Your task to perform on an android device: make emails show in primary in the gmail app Image 0: 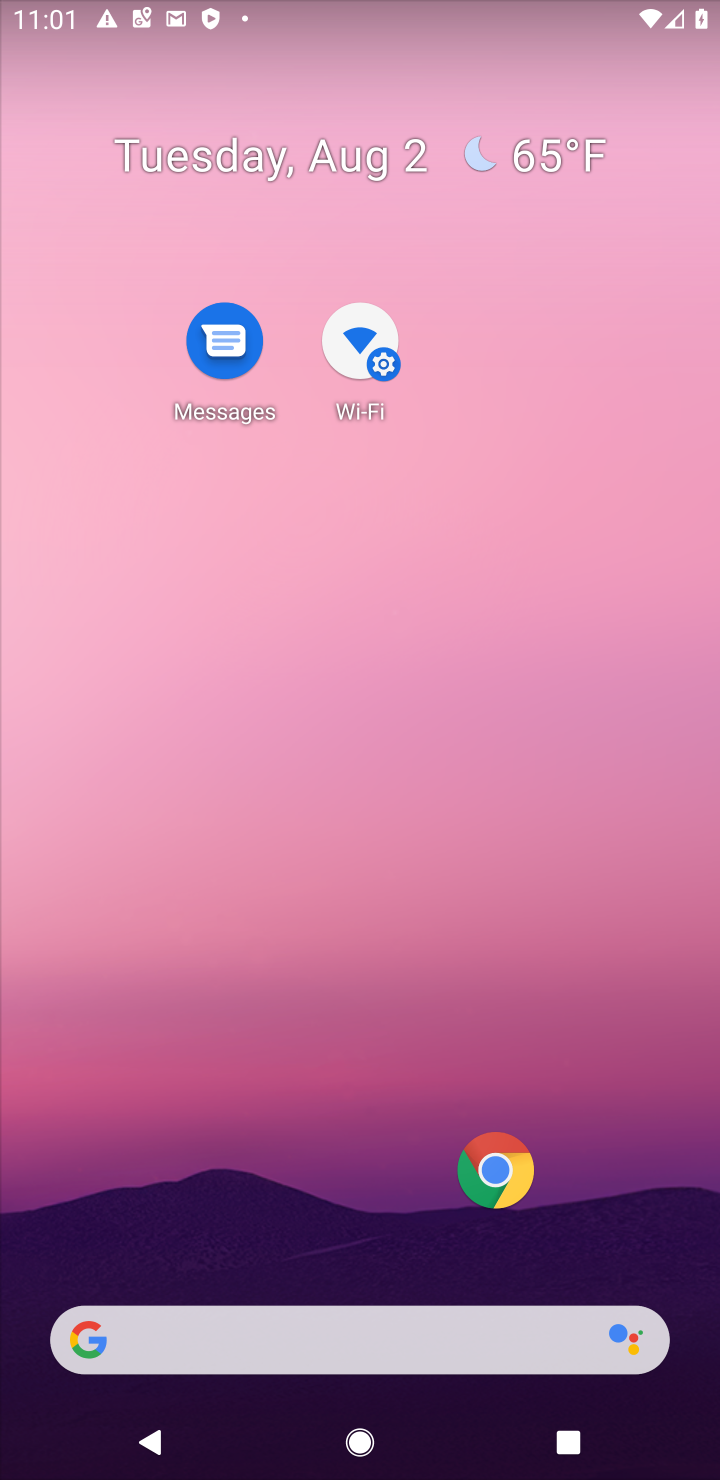
Step 0: drag from (359, 1193) to (341, 258)
Your task to perform on an android device: make emails show in primary in the gmail app Image 1: 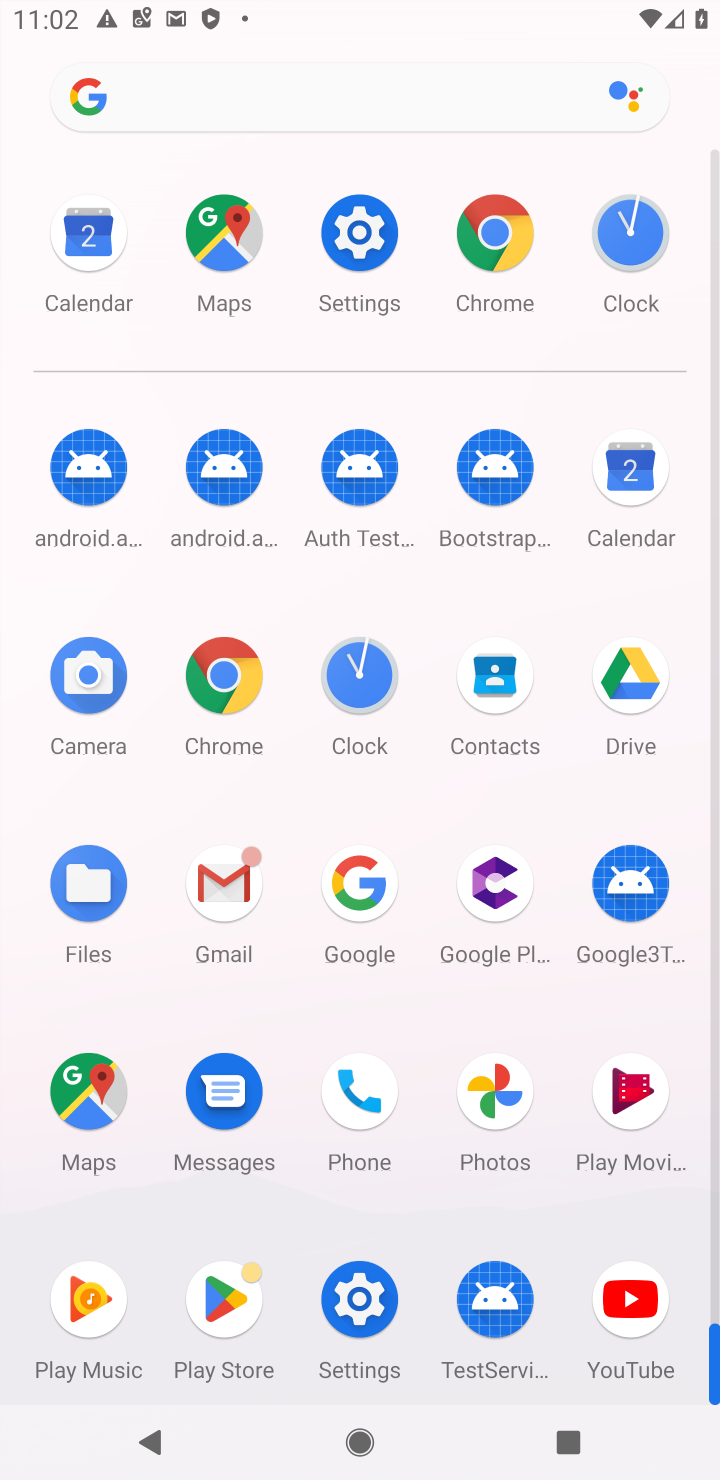
Step 1: click (237, 833)
Your task to perform on an android device: make emails show in primary in the gmail app Image 2: 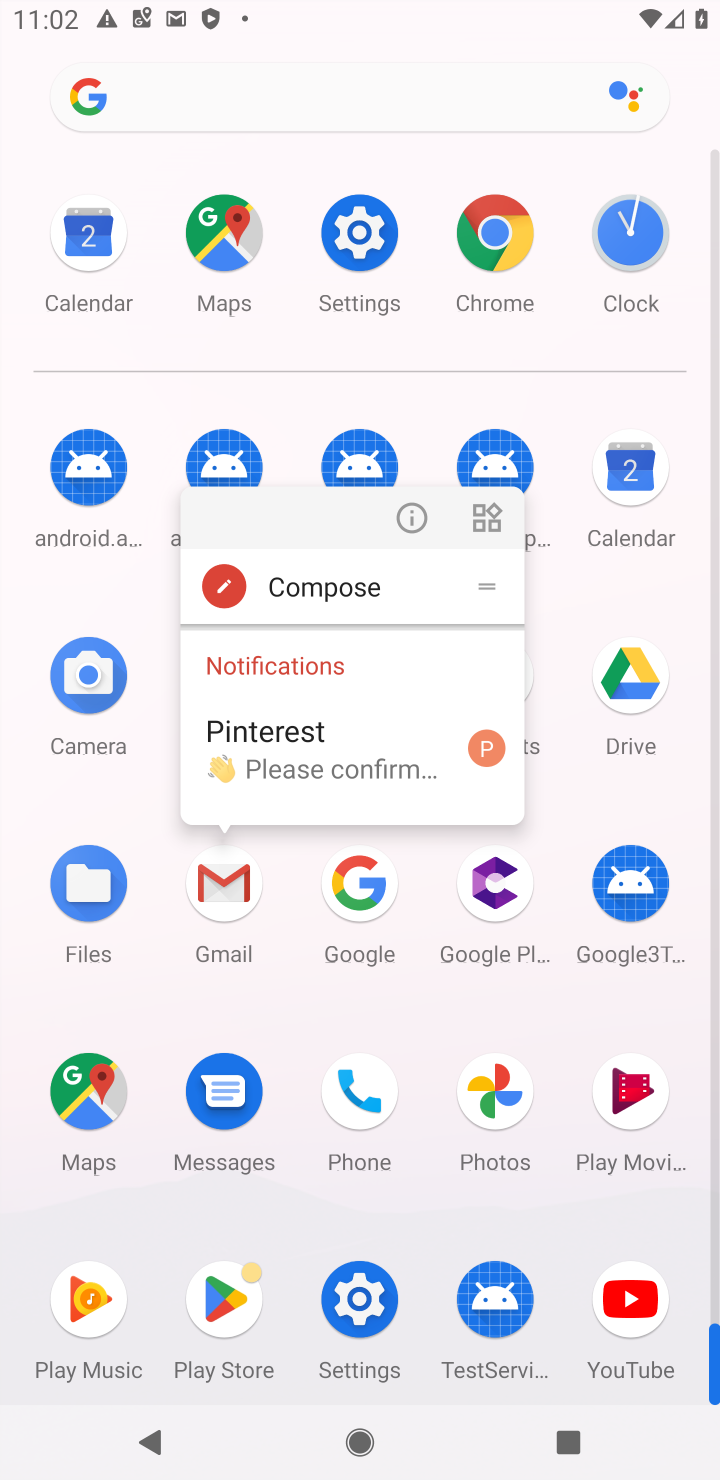
Step 2: click (424, 515)
Your task to perform on an android device: make emails show in primary in the gmail app Image 3: 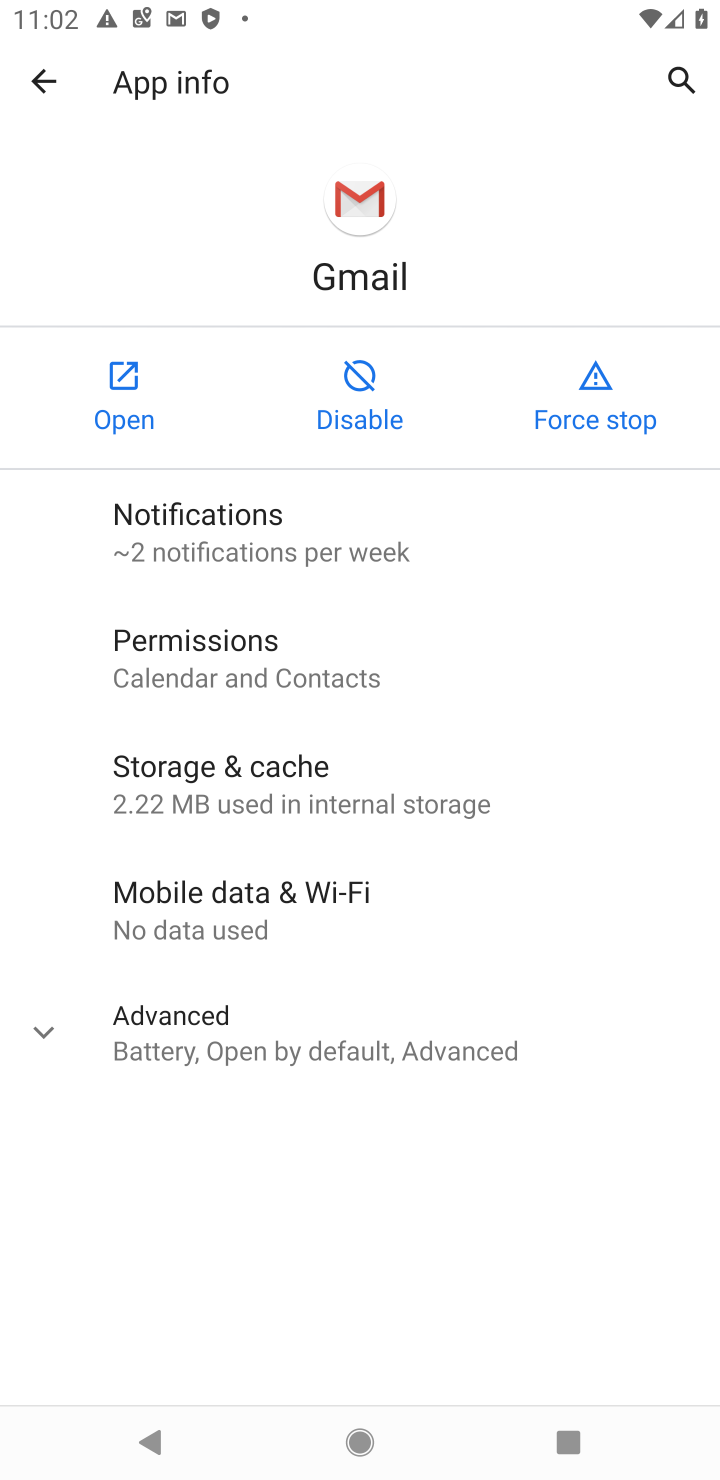
Step 3: click (92, 415)
Your task to perform on an android device: make emails show in primary in the gmail app Image 4: 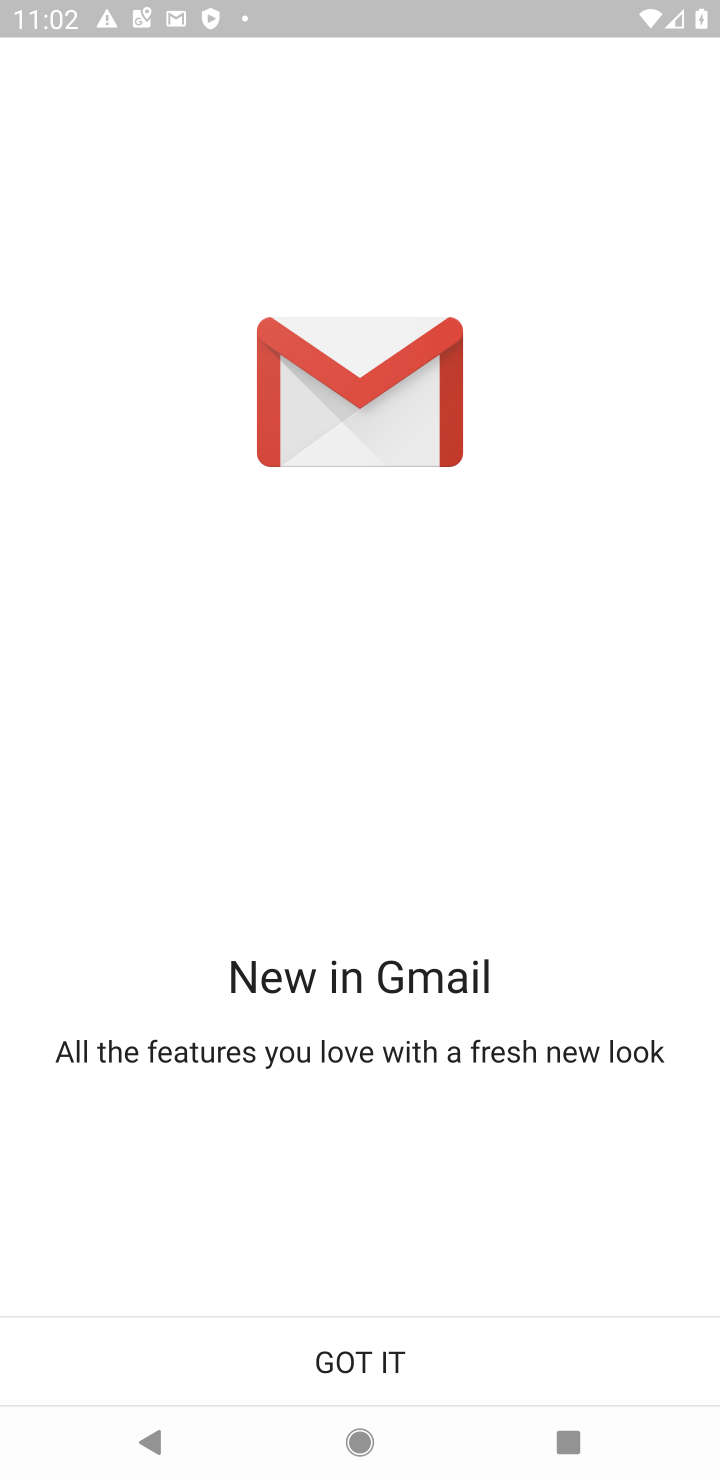
Step 4: click (356, 1366)
Your task to perform on an android device: make emails show in primary in the gmail app Image 5: 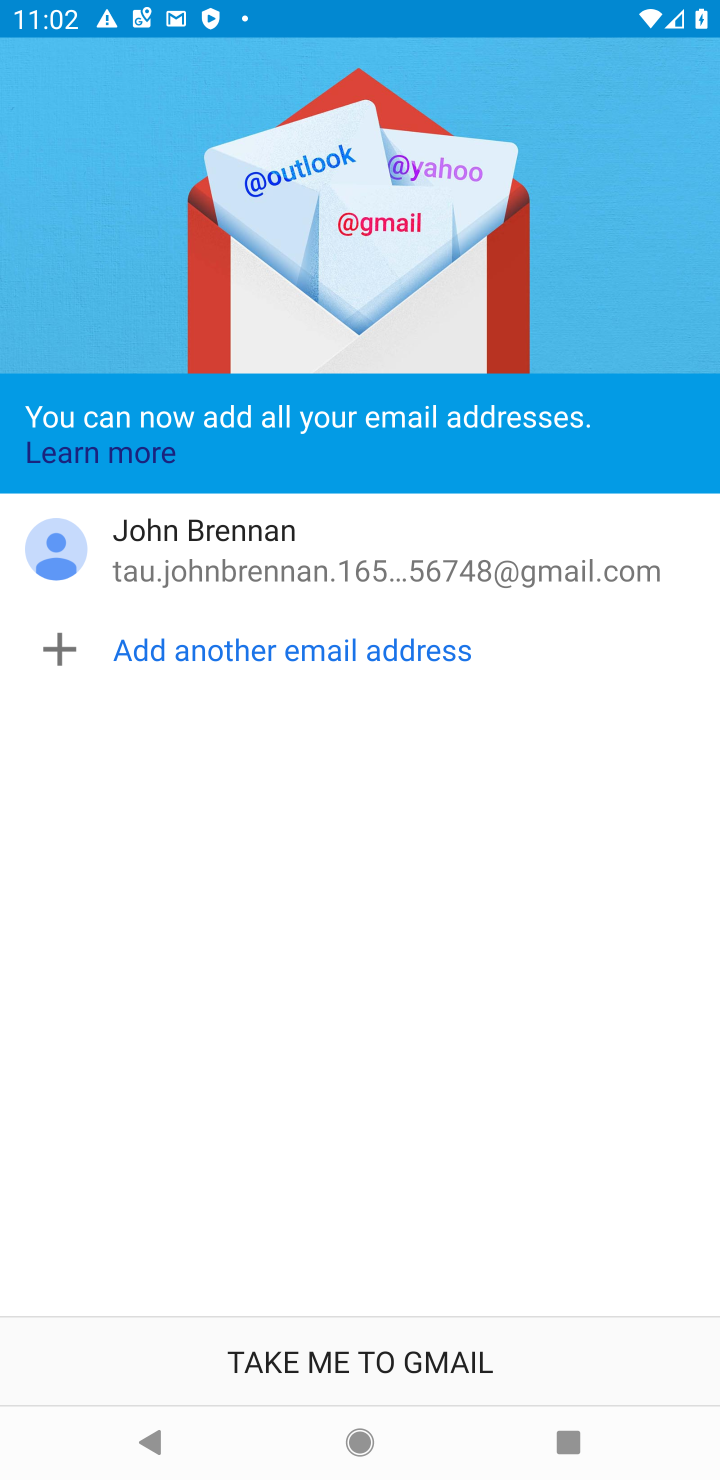
Step 5: click (285, 1344)
Your task to perform on an android device: make emails show in primary in the gmail app Image 6: 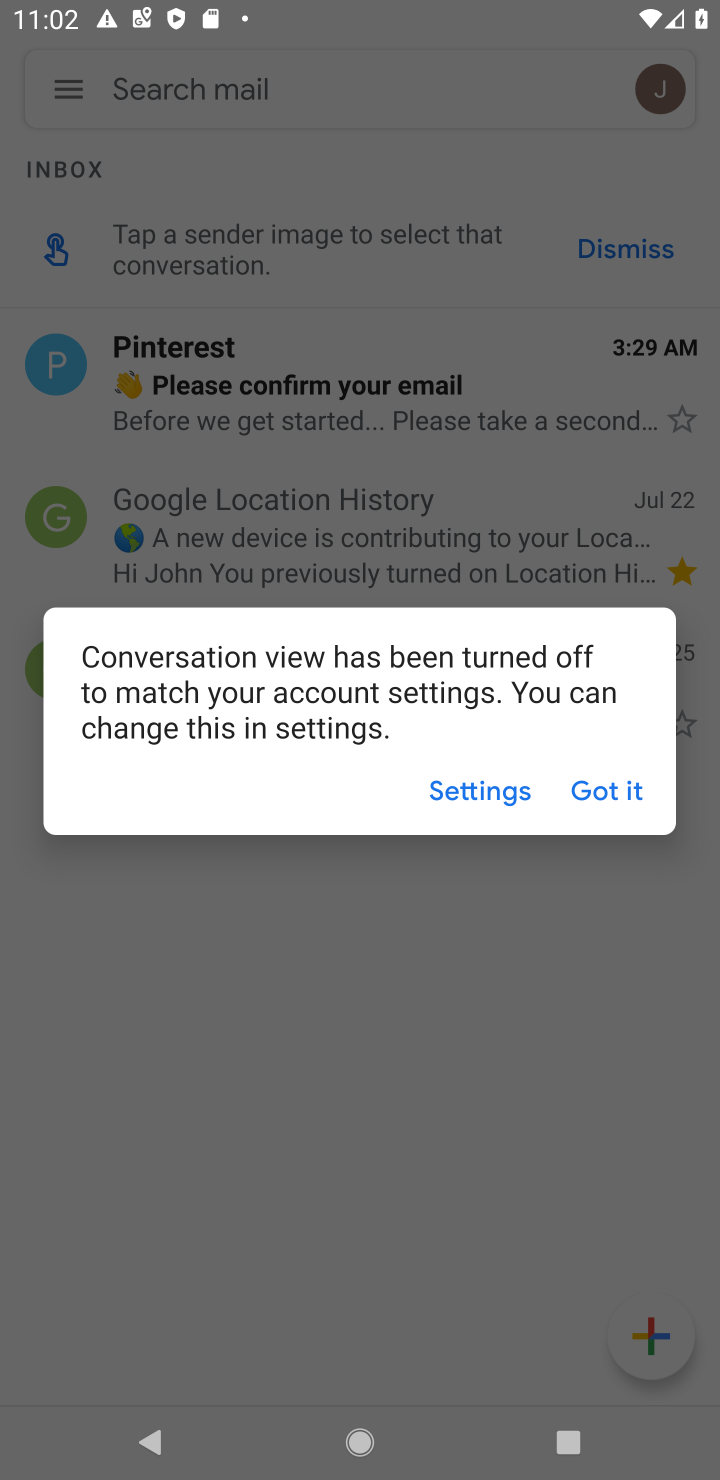
Step 6: drag from (317, 1197) to (710, 104)
Your task to perform on an android device: make emails show in primary in the gmail app Image 7: 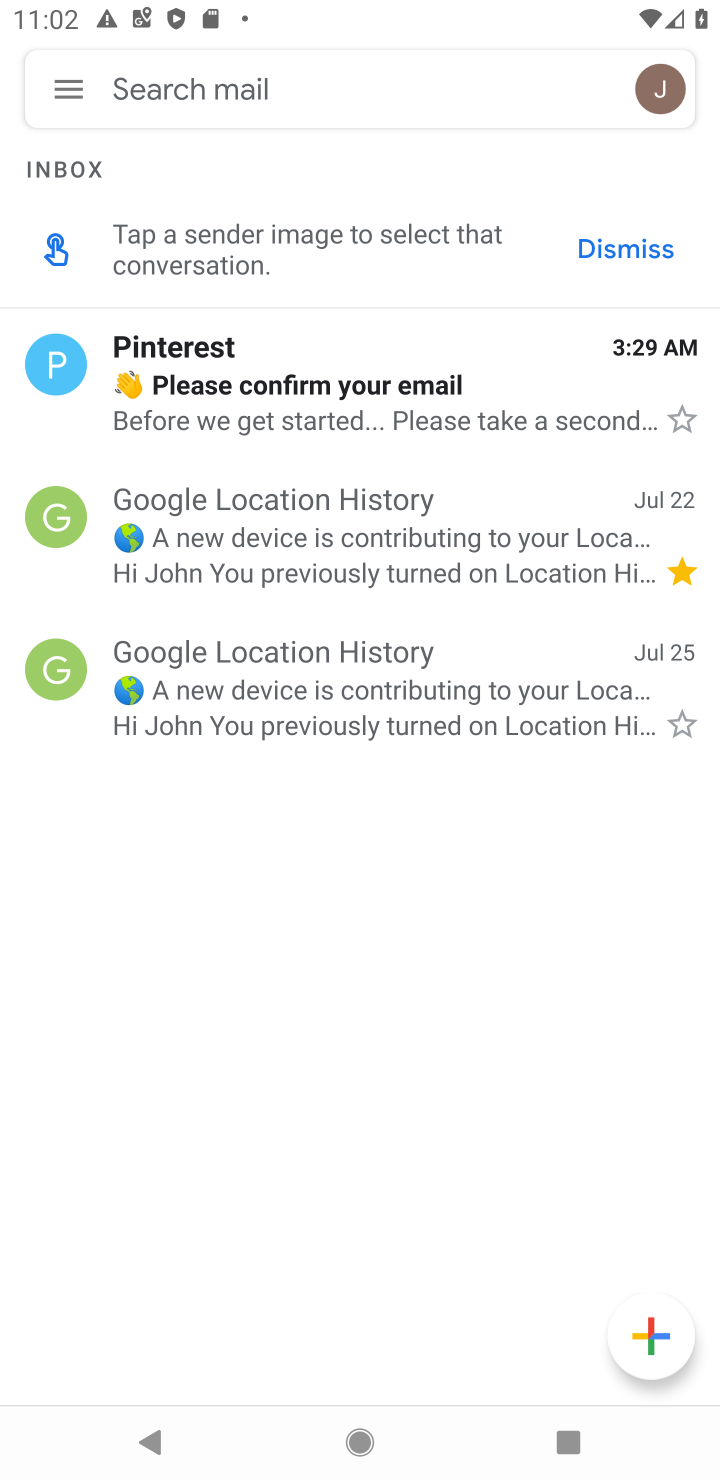
Step 7: click (57, 69)
Your task to perform on an android device: make emails show in primary in the gmail app Image 8: 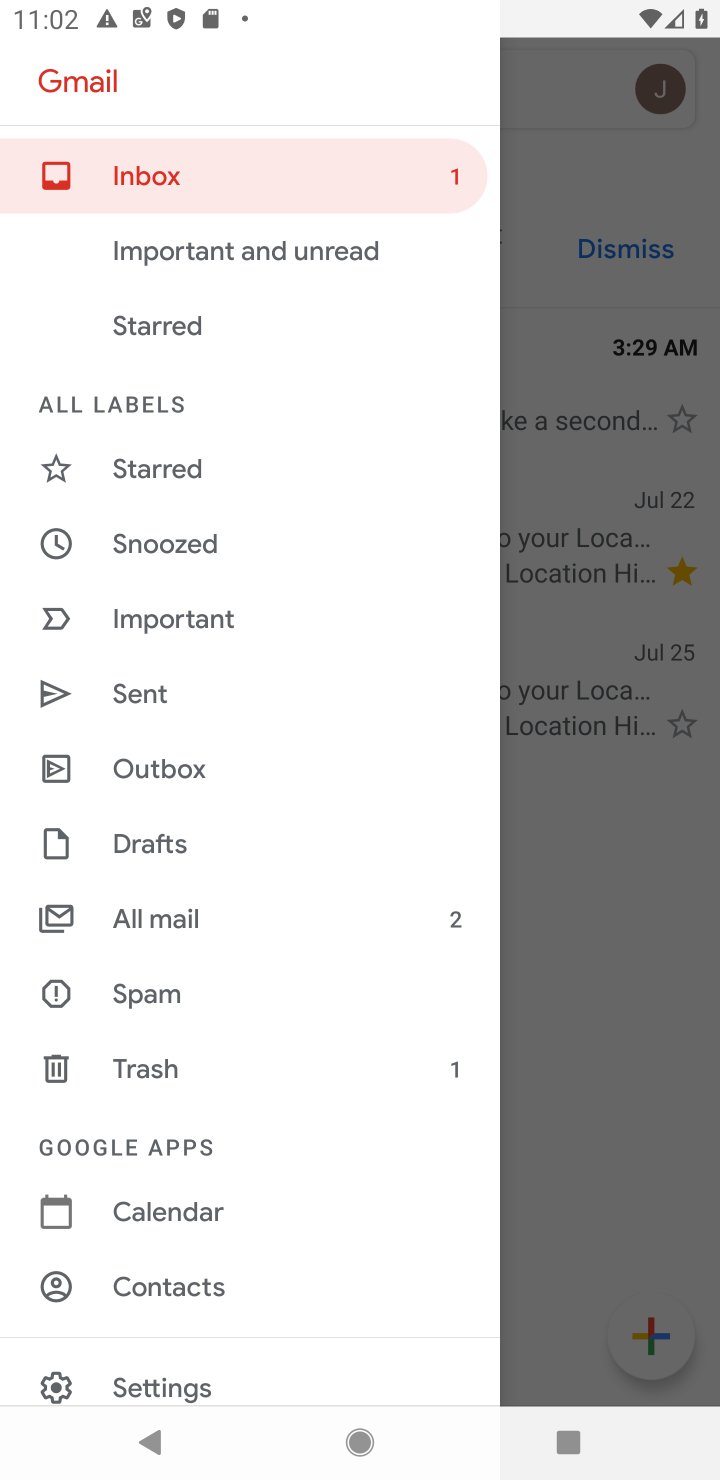
Step 8: task complete